Your task to perform on an android device: Go to display settings Image 0: 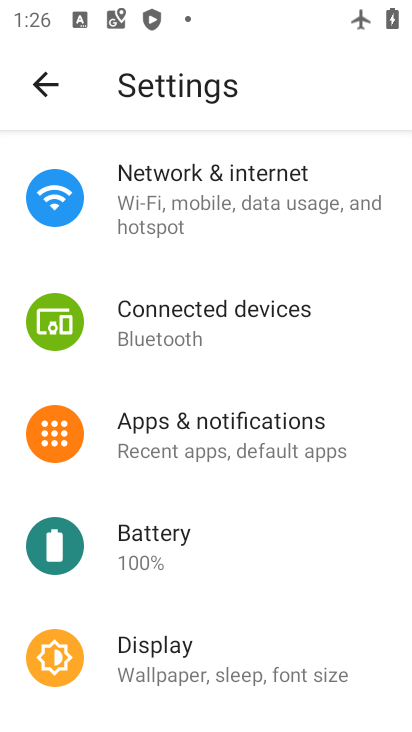
Step 0: drag from (285, 589) to (357, 163)
Your task to perform on an android device: Go to display settings Image 1: 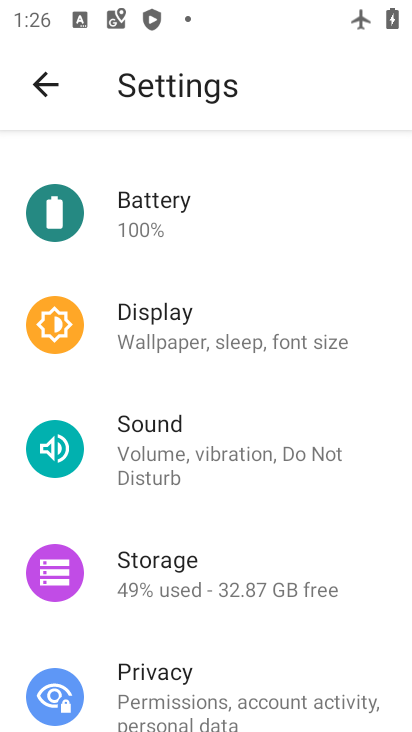
Step 1: click (143, 324)
Your task to perform on an android device: Go to display settings Image 2: 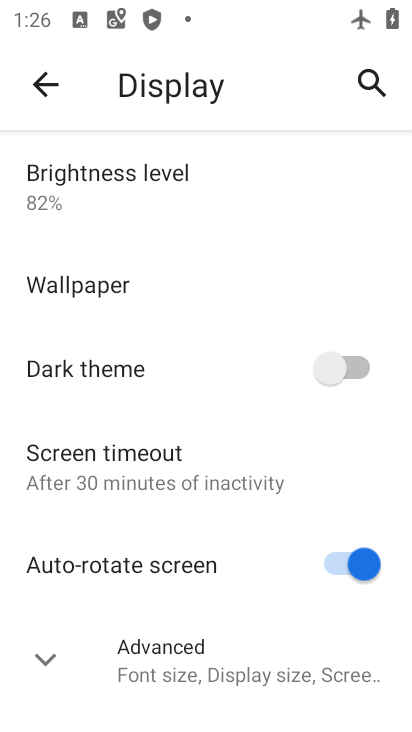
Step 2: click (42, 661)
Your task to perform on an android device: Go to display settings Image 3: 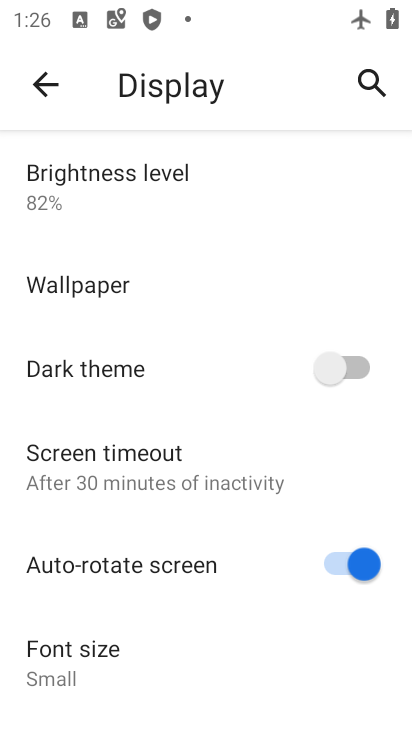
Step 3: task complete